Your task to perform on an android device: Open Reddit.com Image 0: 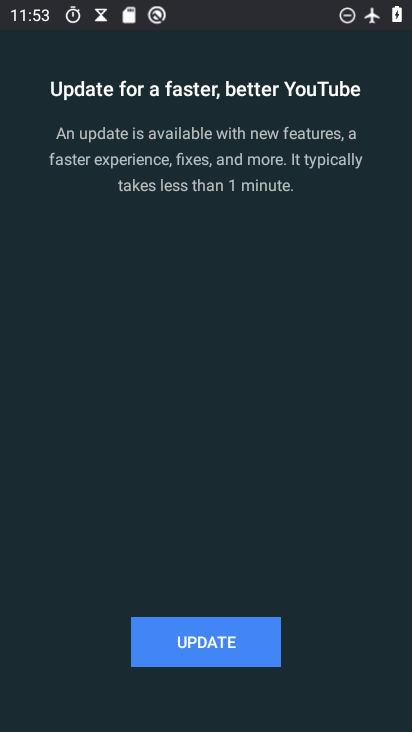
Step 0: press home button
Your task to perform on an android device: Open Reddit.com Image 1: 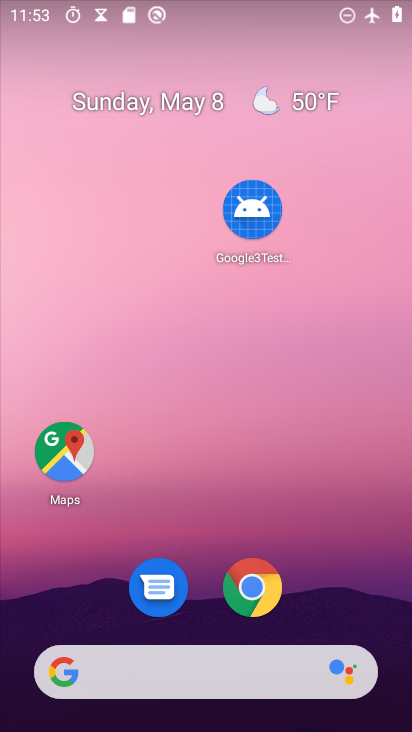
Step 1: drag from (323, 528) to (41, 130)
Your task to perform on an android device: Open Reddit.com Image 2: 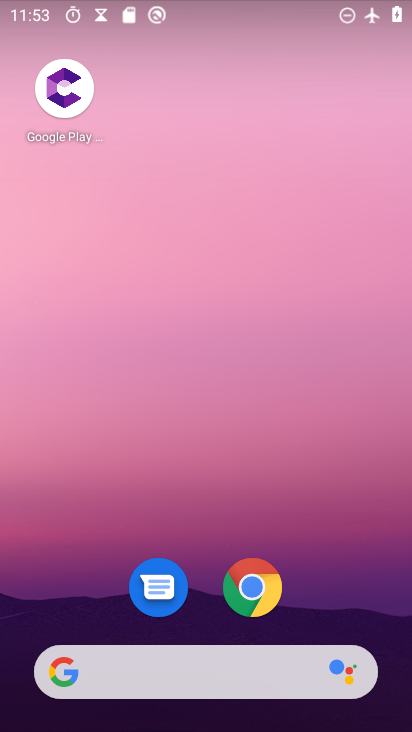
Step 2: drag from (298, 473) to (244, 122)
Your task to perform on an android device: Open Reddit.com Image 3: 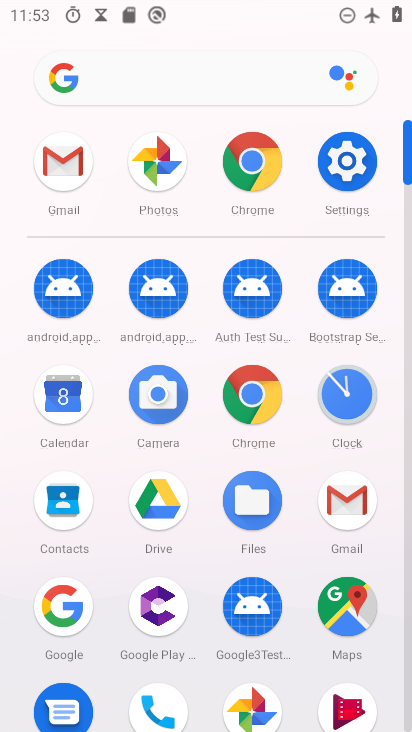
Step 3: click (250, 133)
Your task to perform on an android device: Open Reddit.com Image 4: 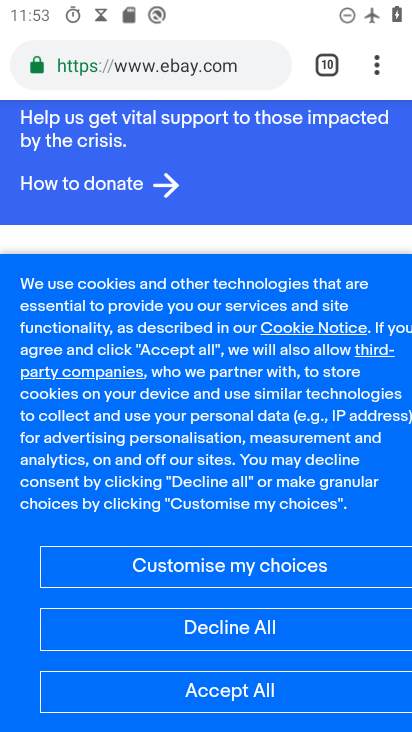
Step 4: click (327, 68)
Your task to perform on an android device: Open Reddit.com Image 5: 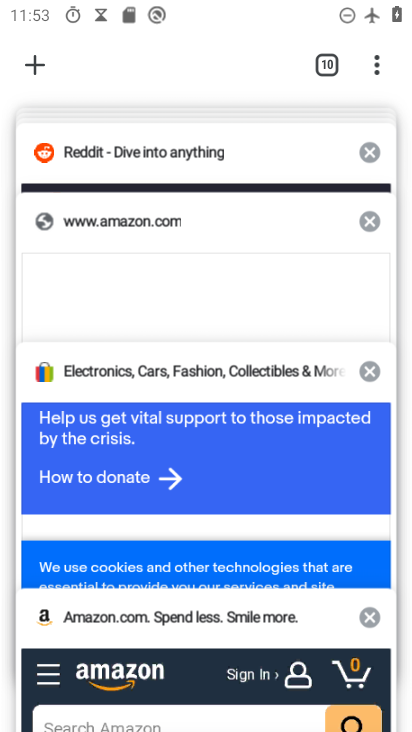
Step 5: click (138, 152)
Your task to perform on an android device: Open Reddit.com Image 6: 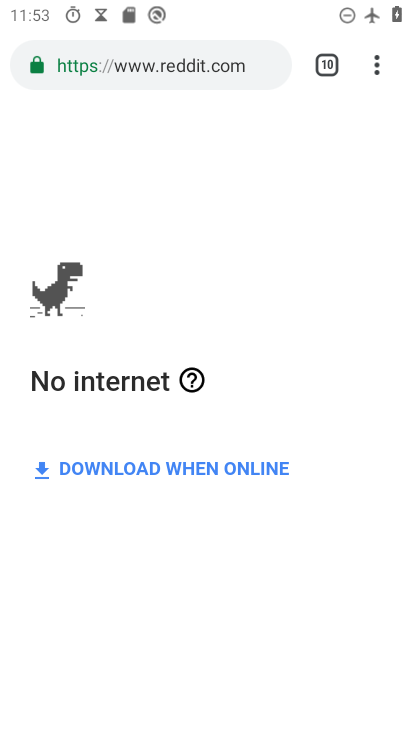
Step 6: task complete